Your task to perform on an android device: toggle improve location accuracy Image 0: 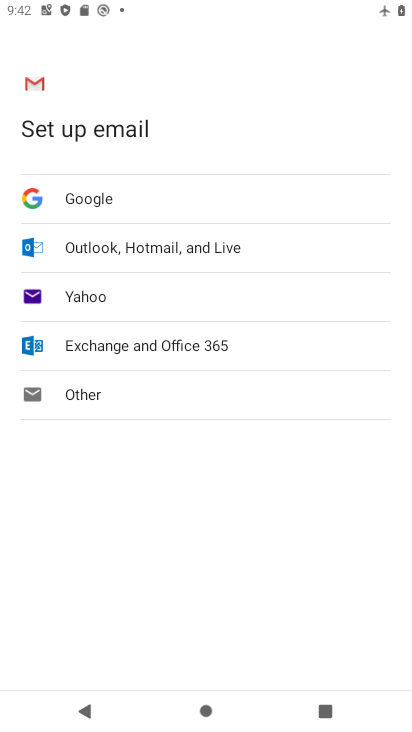
Step 0: press home button
Your task to perform on an android device: toggle improve location accuracy Image 1: 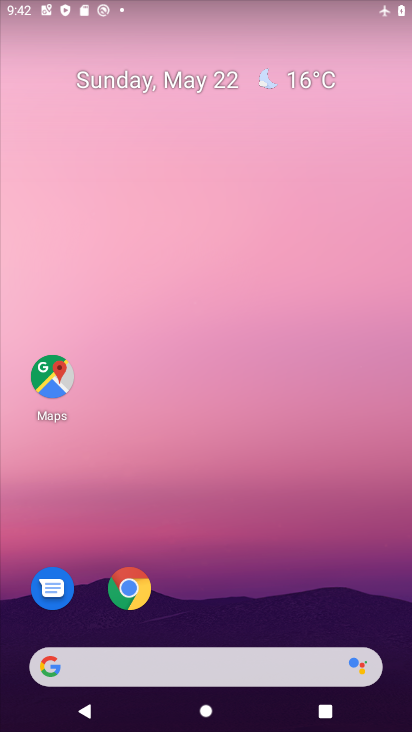
Step 1: drag from (232, 621) to (226, 146)
Your task to perform on an android device: toggle improve location accuracy Image 2: 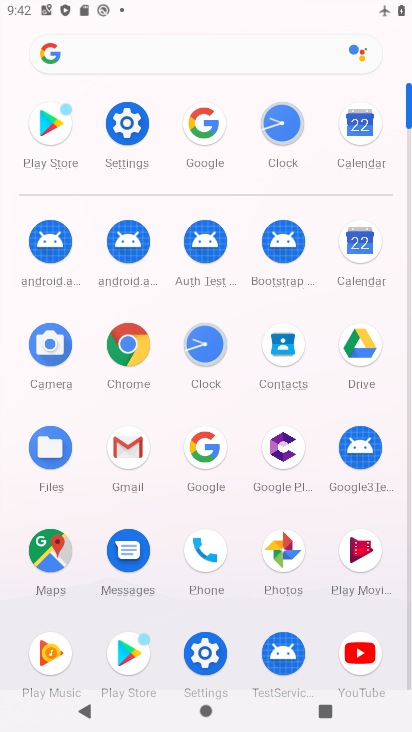
Step 2: click (126, 113)
Your task to perform on an android device: toggle improve location accuracy Image 3: 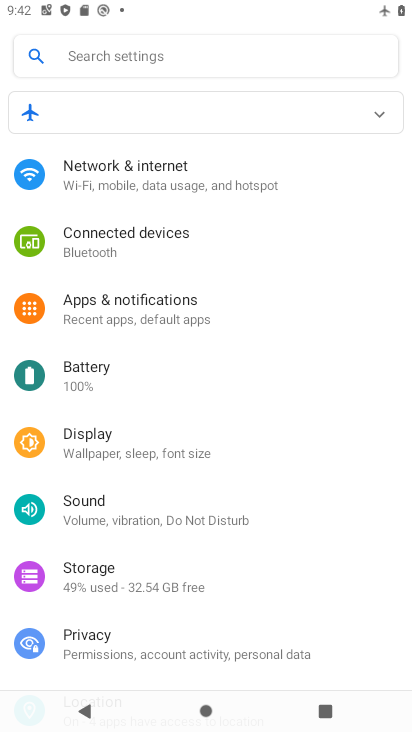
Step 3: drag from (171, 568) to (222, 293)
Your task to perform on an android device: toggle improve location accuracy Image 4: 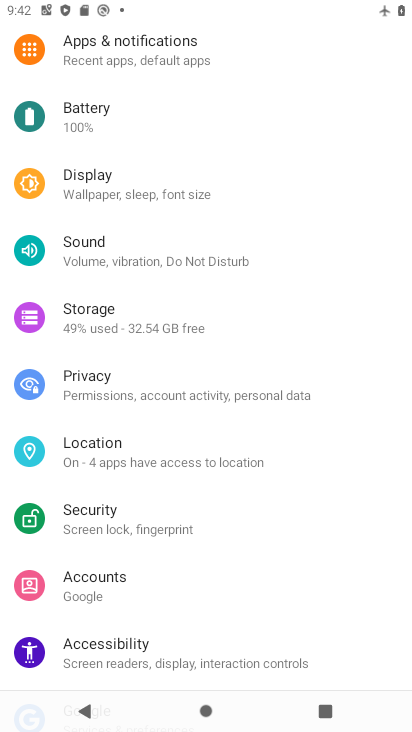
Step 4: click (145, 437)
Your task to perform on an android device: toggle improve location accuracy Image 5: 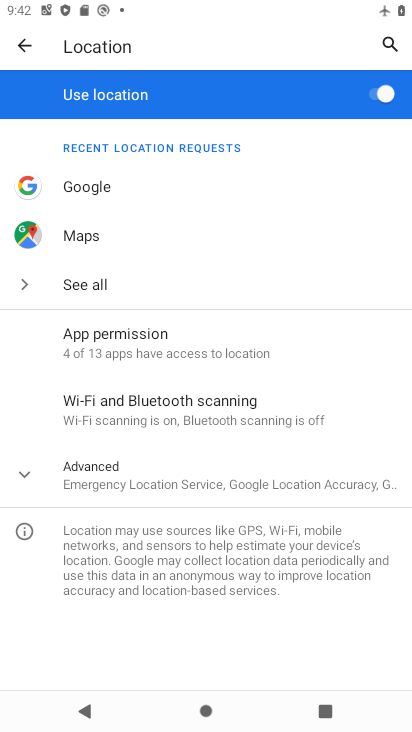
Step 5: click (188, 491)
Your task to perform on an android device: toggle improve location accuracy Image 6: 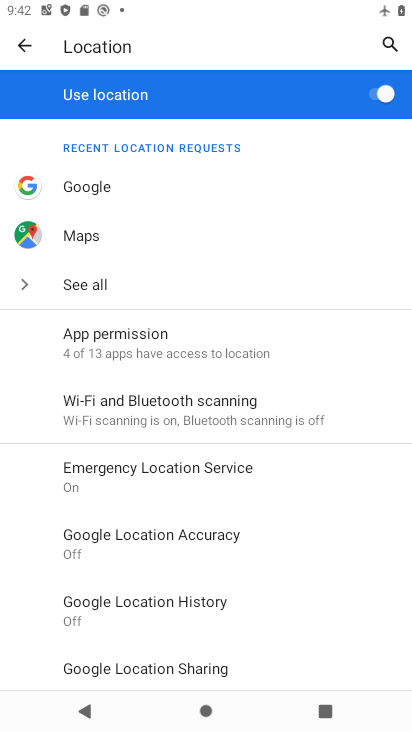
Step 6: click (209, 545)
Your task to perform on an android device: toggle improve location accuracy Image 7: 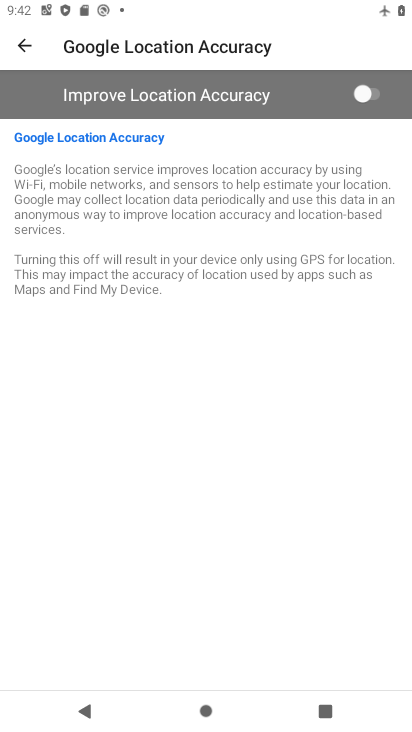
Step 7: click (372, 86)
Your task to perform on an android device: toggle improve location accuracy Image 8: 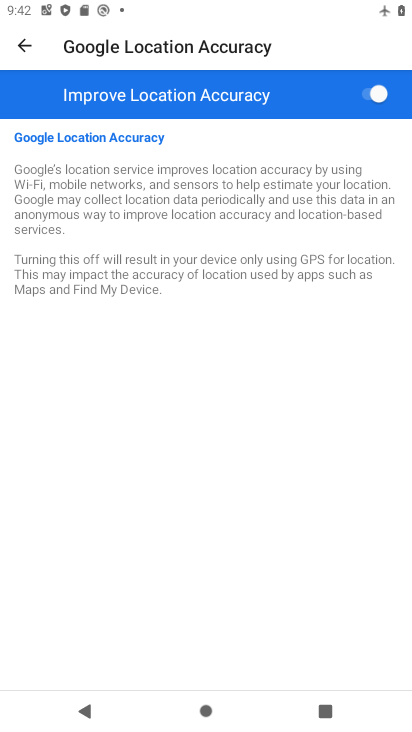
Step 8: task complete